Your task to perform on an android device: find snoozed emails in the gmail app Image 0: 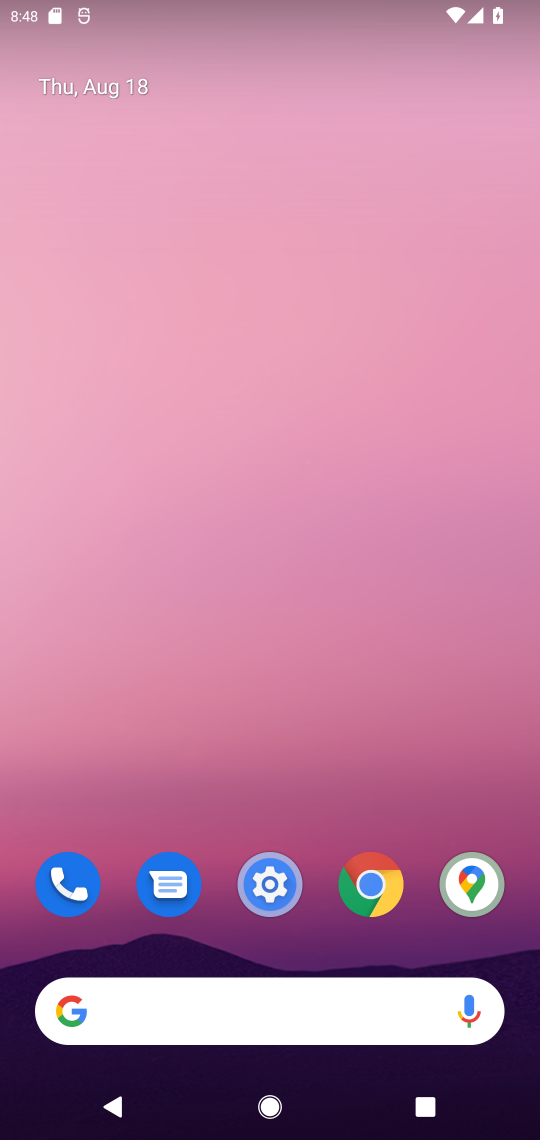
Step 0: drag from (265, 973) to (294, 284)
Your task to perform on an android device: find snoozed emails in the gmail app Image 1: 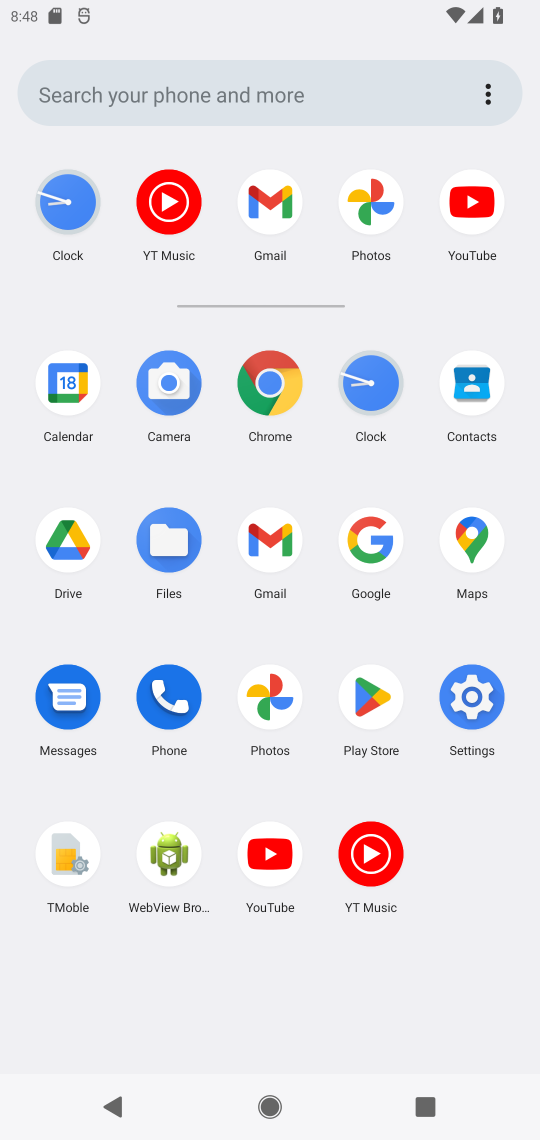
Step 1: click (267, 166)
Your task to perform on an android device: find snoozed emails in the gmail app Image 2: 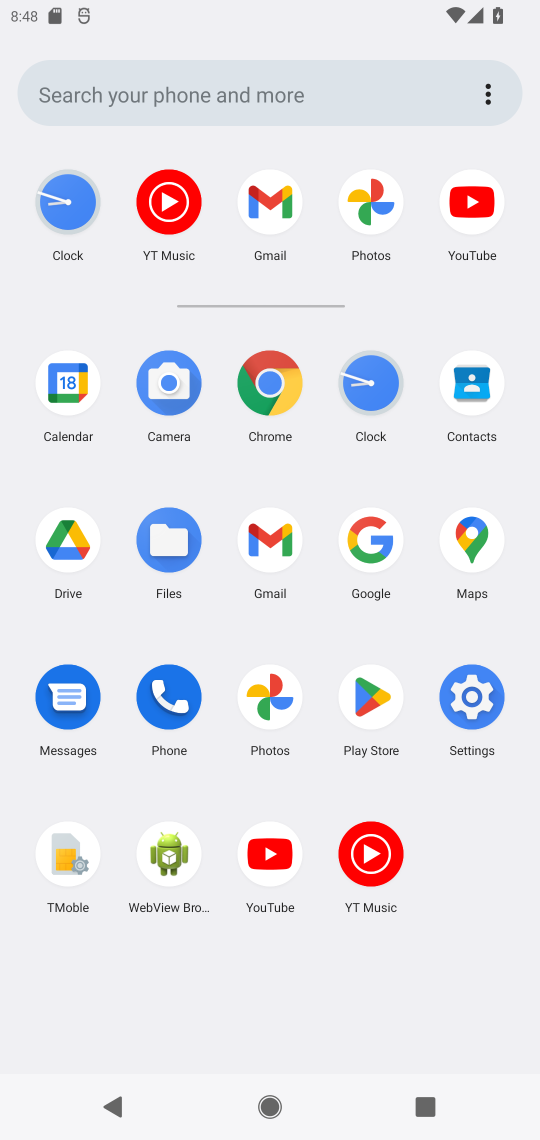
Step 2: click (298, 204)
Your task to perform on an android device: find snoozed emails in the gmail app Image 3: 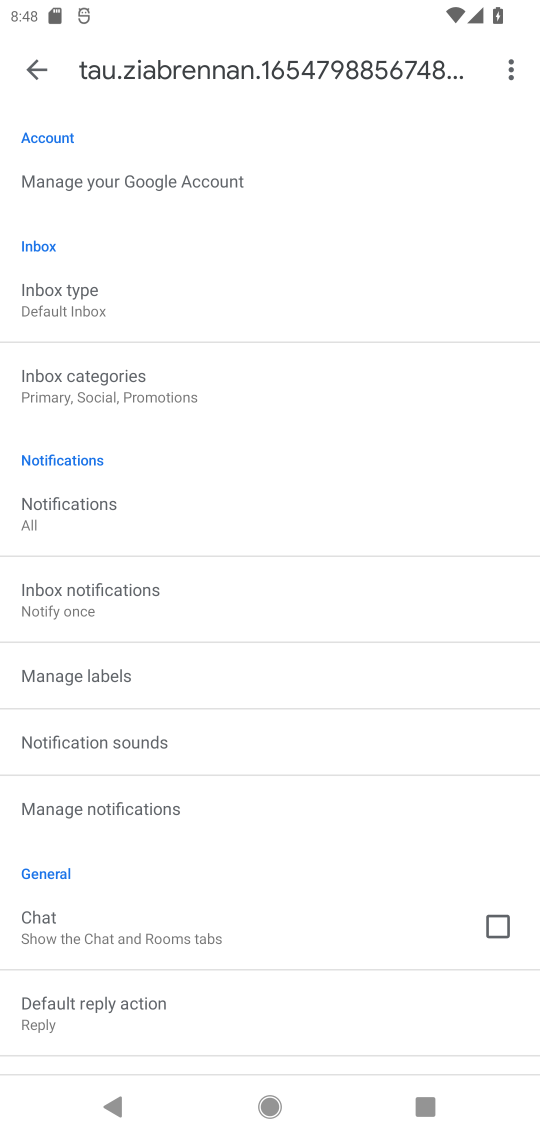
Step 3: click (26, 59)
Your task to perform on an android device: find snoozed emails in the gmail app Image 4: 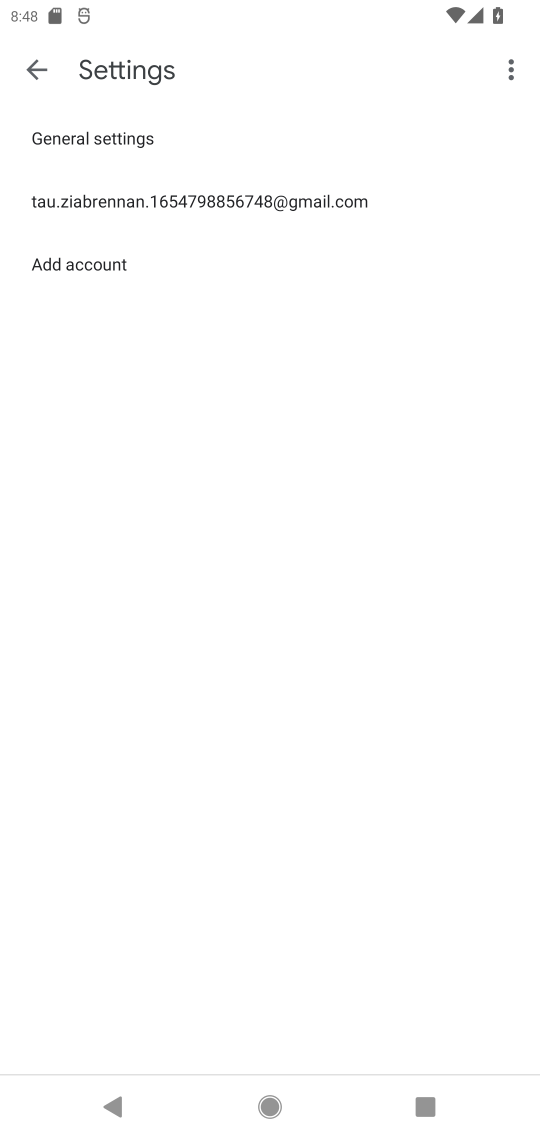
Step 4: click (21, 55)
Your task to perform on an android device: find snoozed emails in the gmail app Image 5: 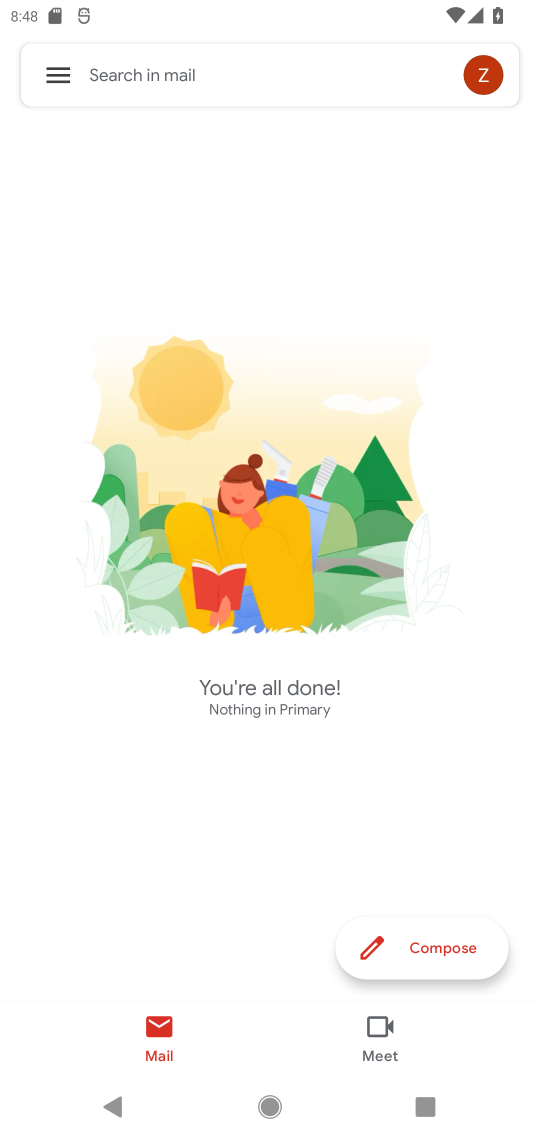
Step 5: click (59, 85)
Your task to perform on an android device: find snoozed emails in the gmail app Image 6: 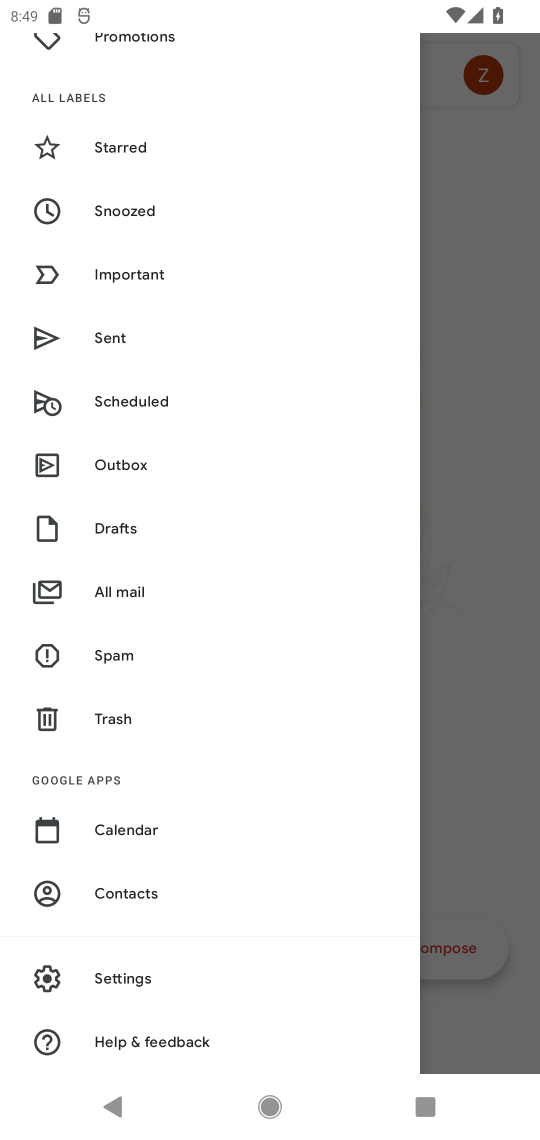
Step 6: click (178, 208)
Your task to perform on an android device: find snoozed emails in the gmail app Image 7: 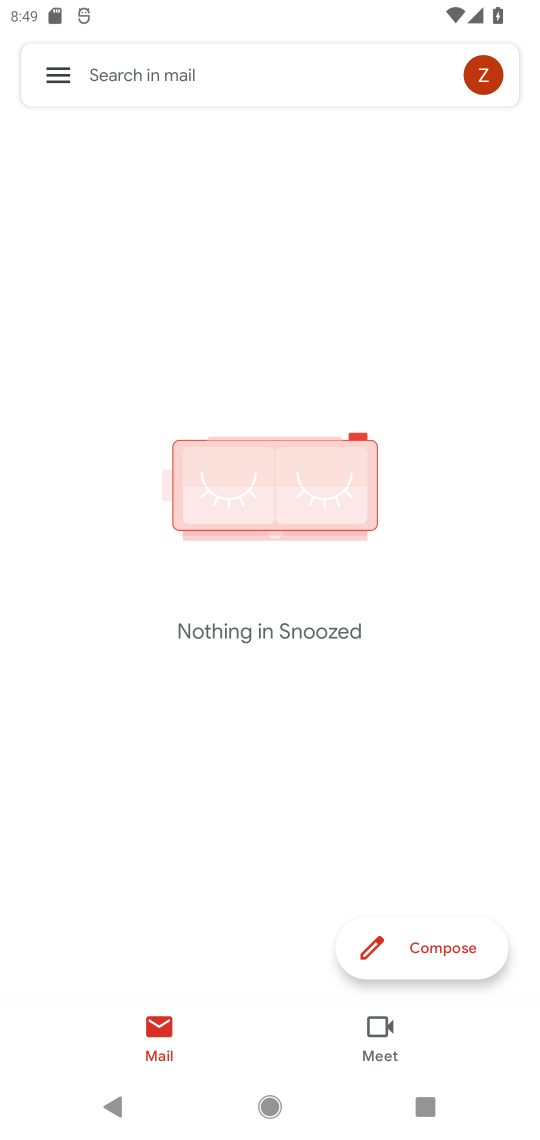
Step 7: task complete